Your task to perform on an android device: Search for vegetarian restaurants on Maps Image 0: 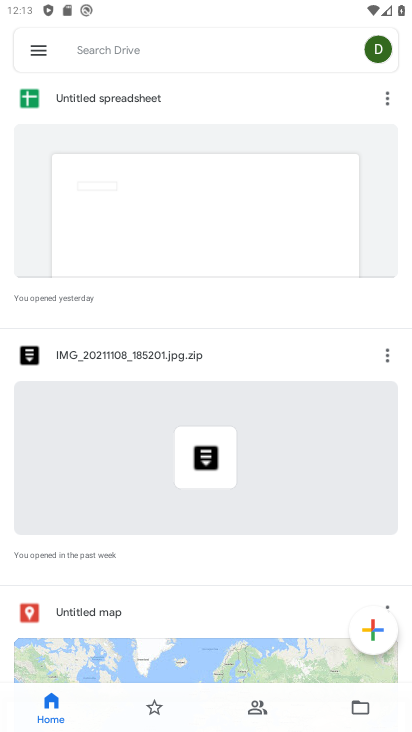
Step 0: drag from (161, 634) to (349, 96)
Your task to perform on an android device: Search for vegetarian restaurants on Maps Image 1: 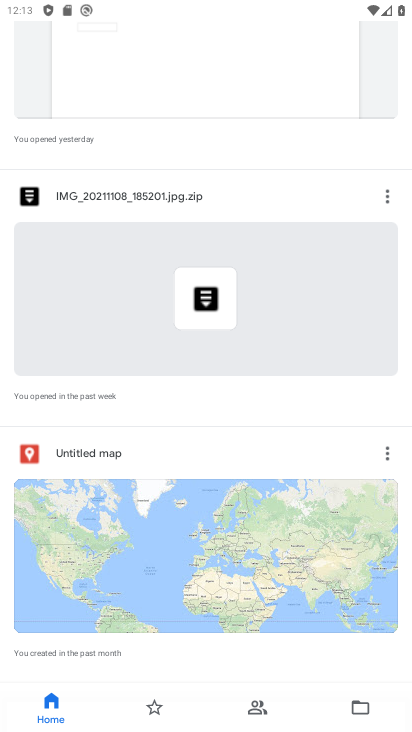
Step 1: press home button
Your task to perform on an android device: Search for vegetarian restaurants on Maps Image 2: 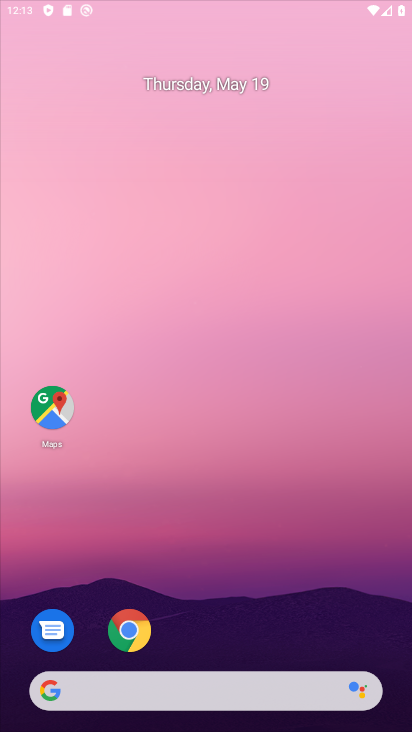
Step 2: drag from (209, 576) to (205, 42)
Your task to perform on an android device: Search for vegetarian restaurants on Maps Image 3: 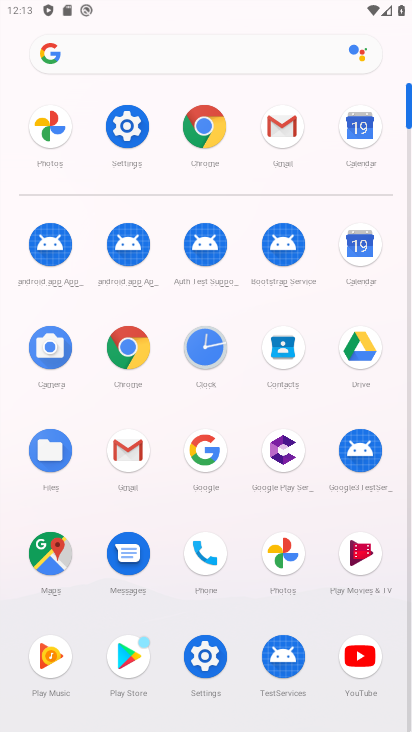
Step 3: click (9, 552)
Your task to perform on an android device: Search for vegetarian restaurants on Maps Image 4: 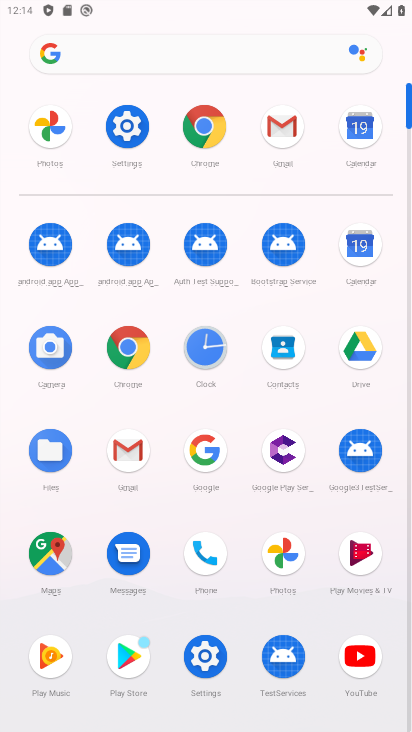
Step 4: click (71, 539)
Your task to perform on an android device: Search for vegetarian restaurants on Maps Image 5: 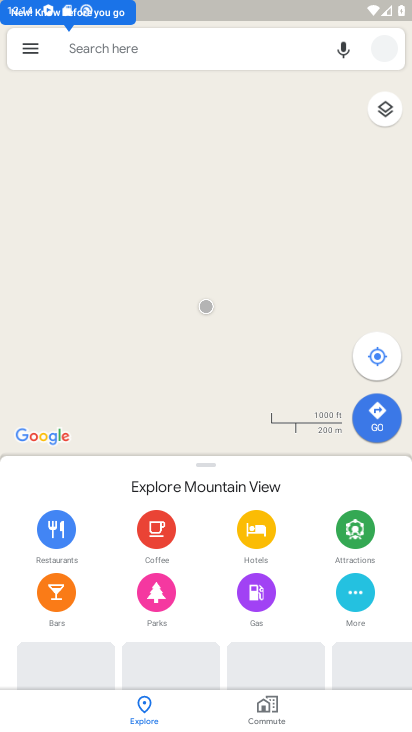
Step 5: click (29, 38)
Your task to perform on an android device: Search for vegetarian restaurants on Maps Image 6: 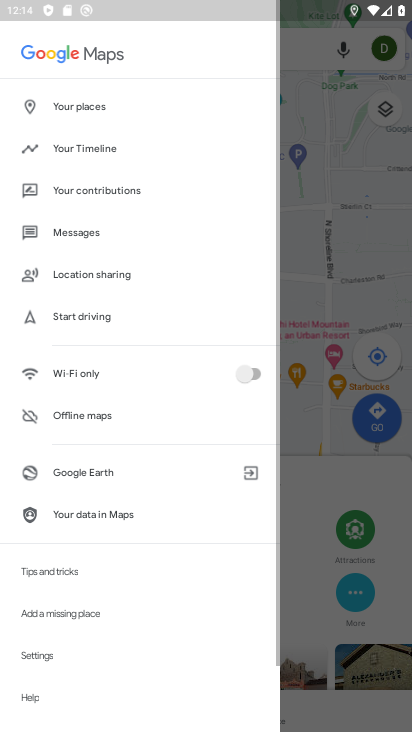
Step 6: click (293, 50)
Your task to perform on an android device: Search for vegetarian restaurants on Maps Image 7: 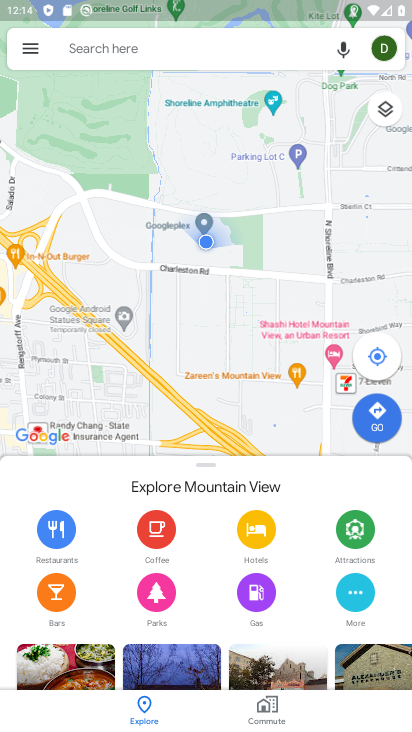
Step 7: click (213, 47)
Your task to perform on an android device: Search for vegetarian restaurants on Maps Image 8: 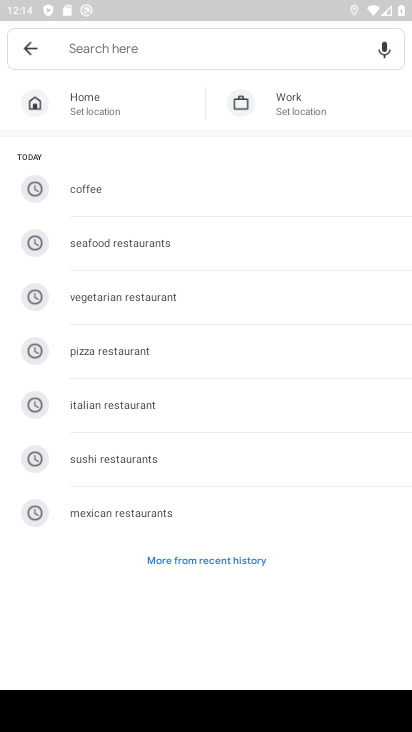
Step 8: click (88, 307)
Your task to perform on an android device: Search for vegetarian restaurants on Maps Image 9: 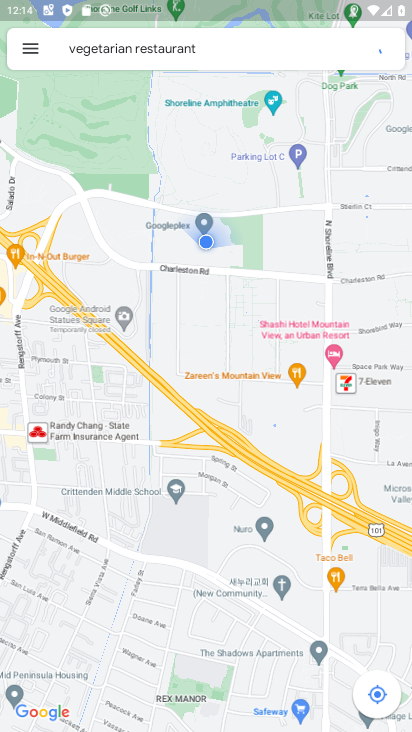
Step 9: task complete